Your task to perform on an android device: When is my next meeting? Image 0: 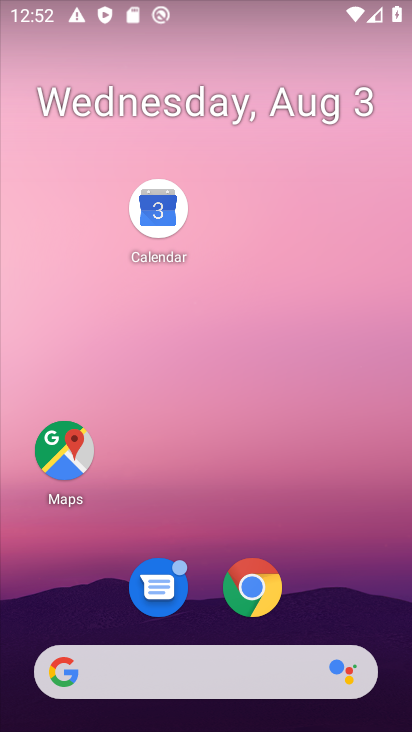
Step 0: click (173, 203)
Your task to perform on an android device: When is my next meeting? Image 1: 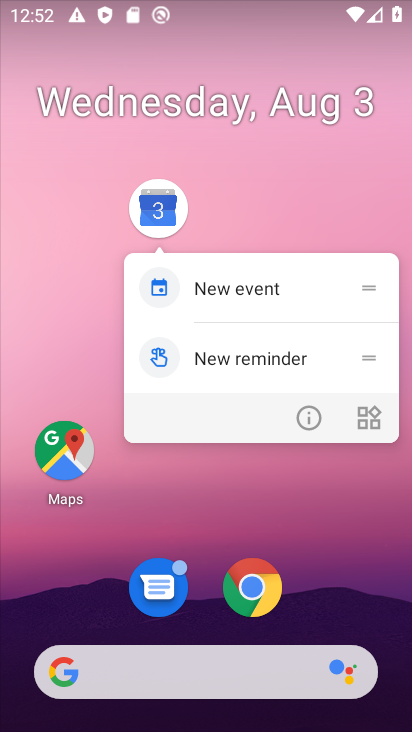
Step 1: click (173, 203)
Your task to perform on an android device: When is my next meeting? Image 2: 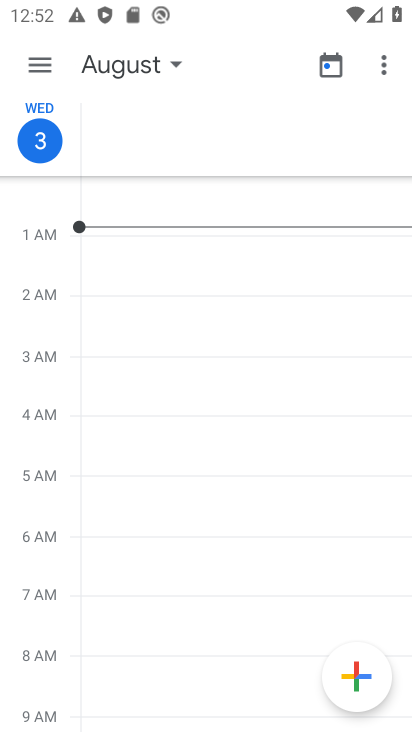
Step 2: click (162, 76)
Your task to perform on an android device: When is my next meeting? Image 3: 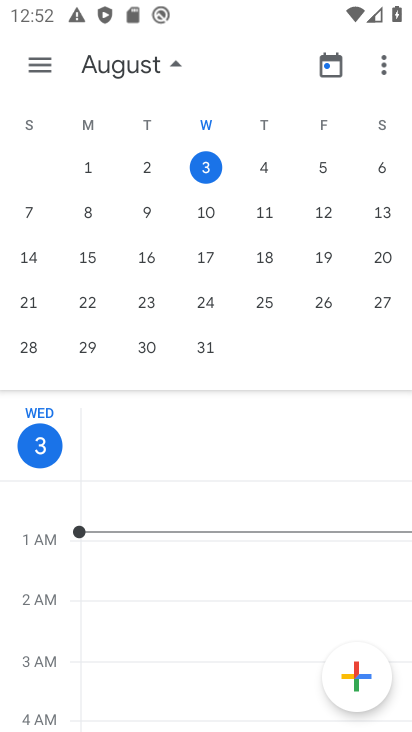
Step 3: click (263, 167)
Your task to perform on an android device: When is my next meeting? Image 4: 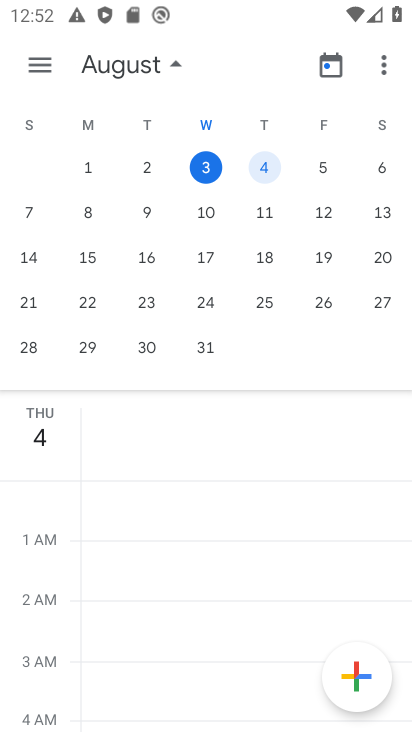
Step 4: click (81, 438)
Your task to perform on an android device: When is my next meeting? Image 5: 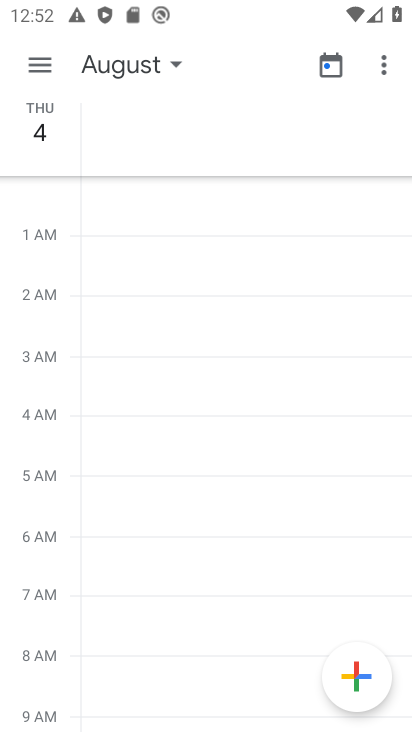
Step 5: task complete